Your task to perform on an android device: visit the assistant section in the google photos Image 0: 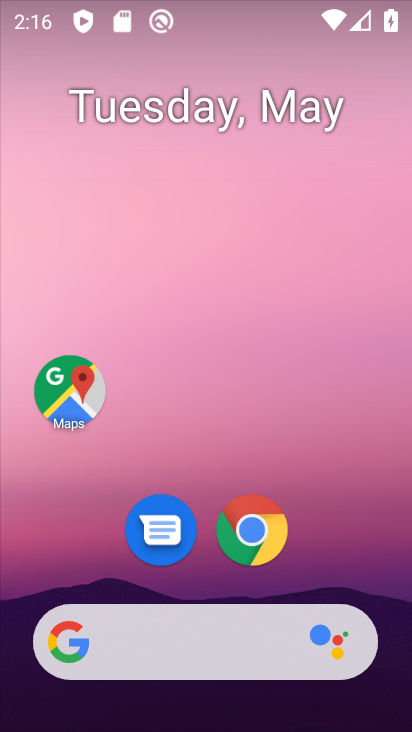
Step 0: drag from (37, 586) to (229, 223)
Your task to perform on an android device: visit the assistant section in the google photos Image 1: 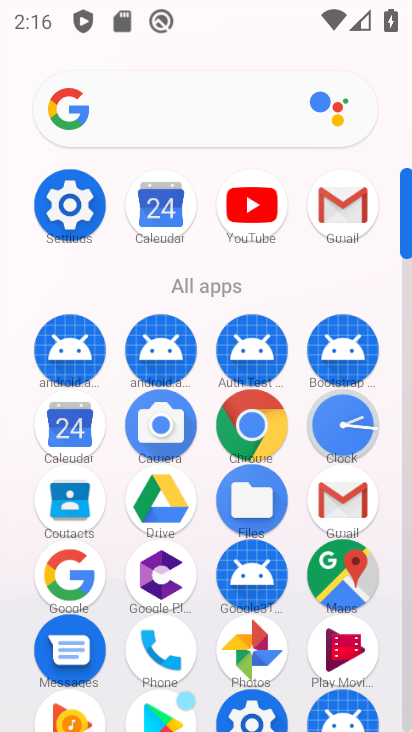
Step 1: click (259, 630)
Your task to perform on an android device: visit the assistant section in the google photos Image 2: 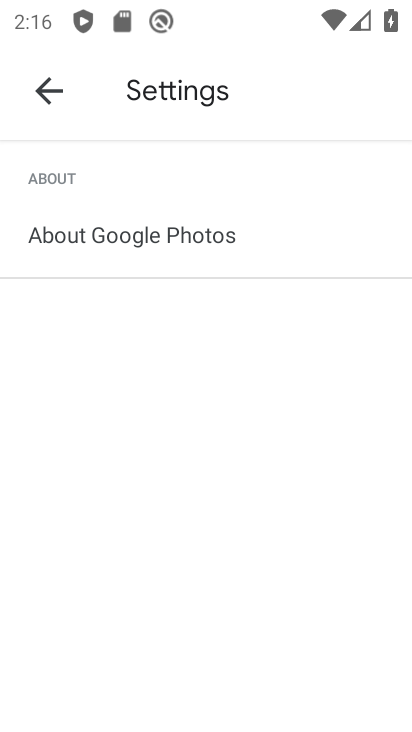
Step 2: press back button
Your task to perform on an android device: visit the assistant section in the google photos Image 3: 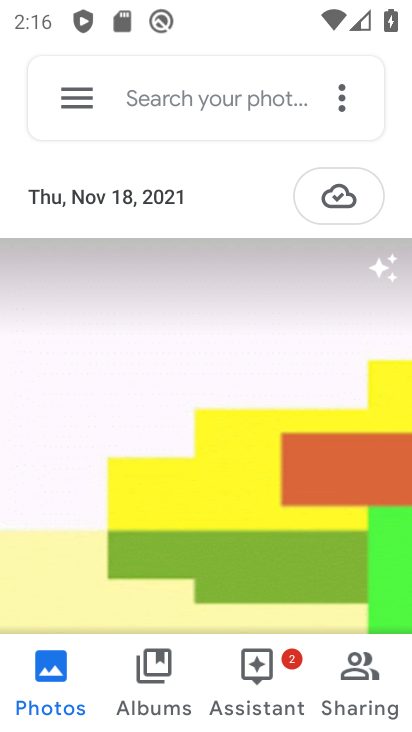
Step 3: click (269, 676)
Your task to perform on an android device: visit the assistant section in the google photos Image 4: 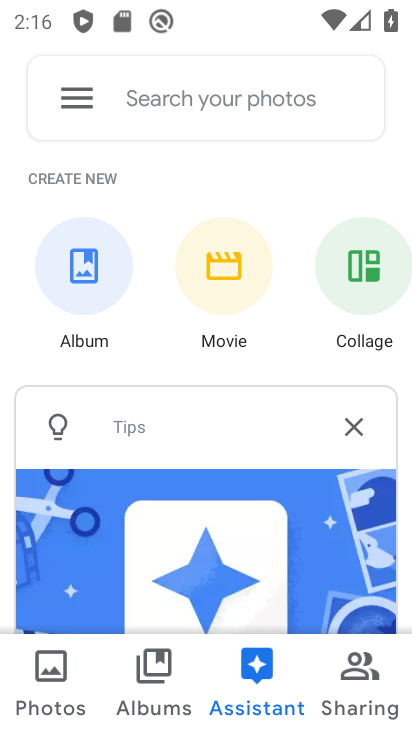
Step 4: task complete